Your task to perform on an android device: open chrome privacy settings Image 0: 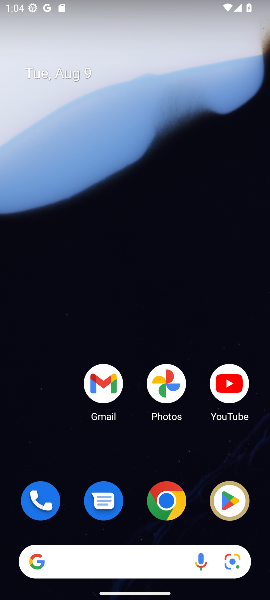
Step 0: click (164, 485)
Your task to perform on an android device: open chrome privacy settings Image 1: 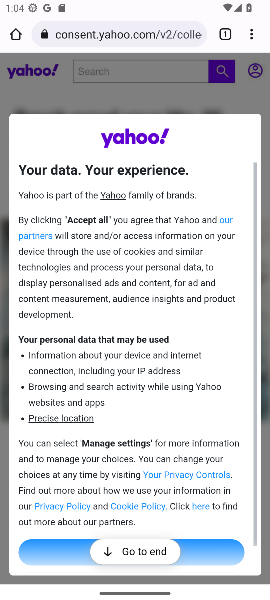
Step 1: click (254, 33)
Your task to perform on an android device: open chrome privacy settings Image 2: 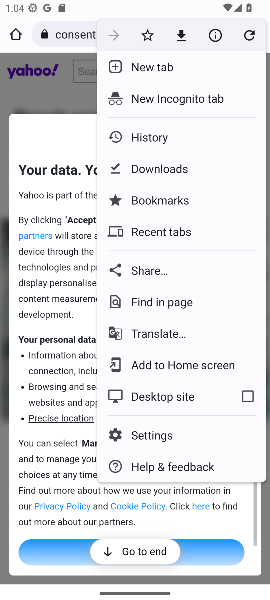
Step 2: click (143, 429)
Your task to perform on an android device: open chrome privacy settings Image 3: 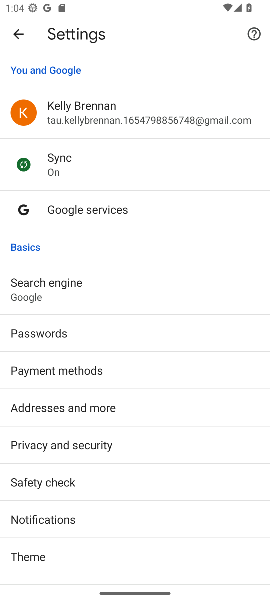
Step 3: click (68, 439)
Your task to perform on an android device: open chrome privacy settings Image 4: 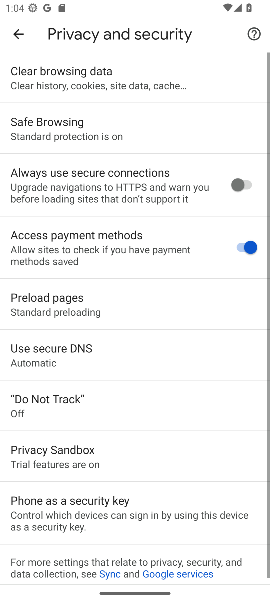
Step 4: task complete